Your task to perform on an android device: Open CNN.com Image 0: 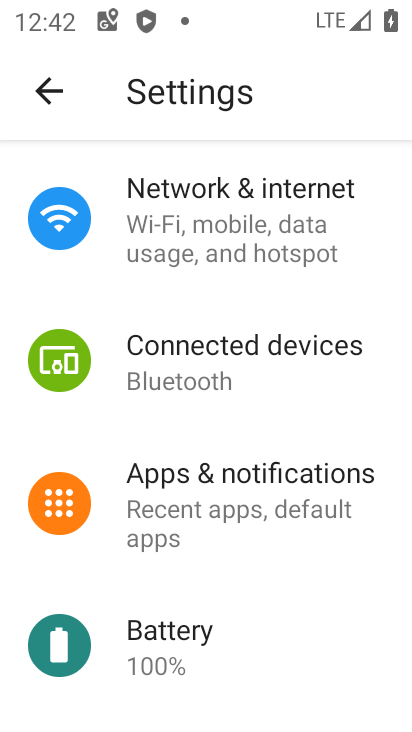
Step 0: press home button
Your task to perform on an android device: Open CNN.com Image 1: 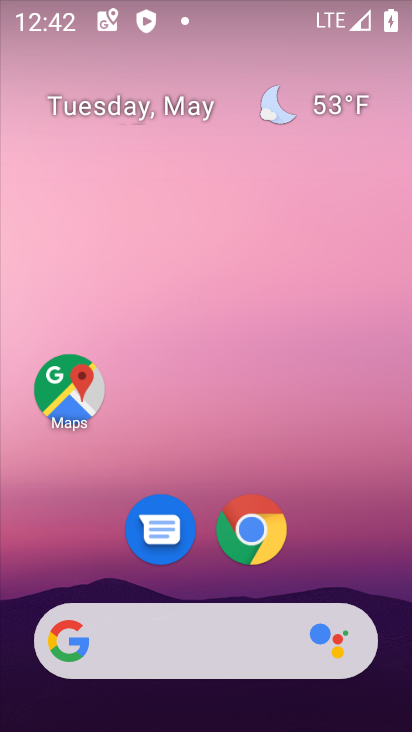
Step 1: click (252, 530)
Your task to perform on an android device: Open CNN.com Image 2: 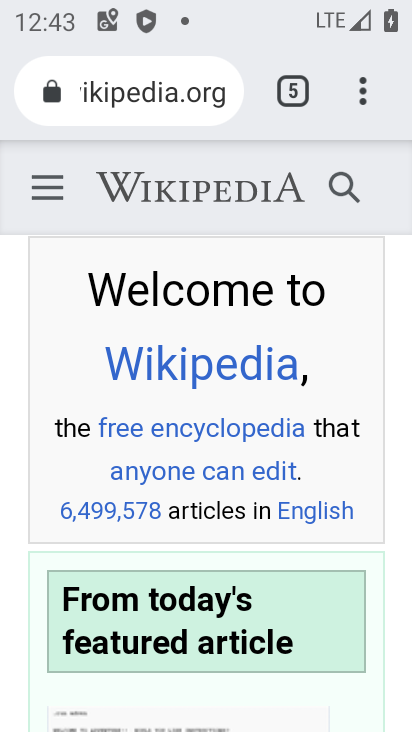
Step 2: click (364, 99)
Your task to perform on an android device: Open CNN.com Image 3: 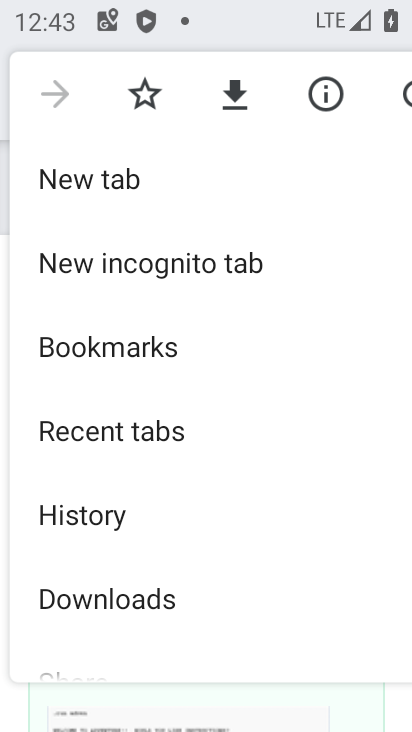
Step 3: click (121, 182)
Your task to perform on an android device: Open CNN.com Image 4: 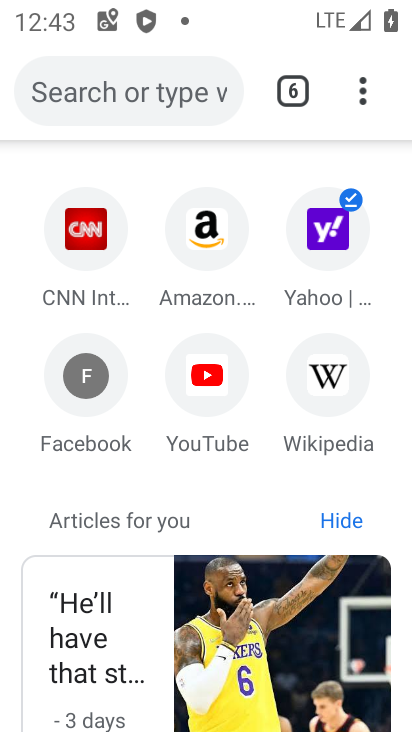
Step 4: click (141, 99)
Your task to perform on an android device: Open CNN.com Image 5: 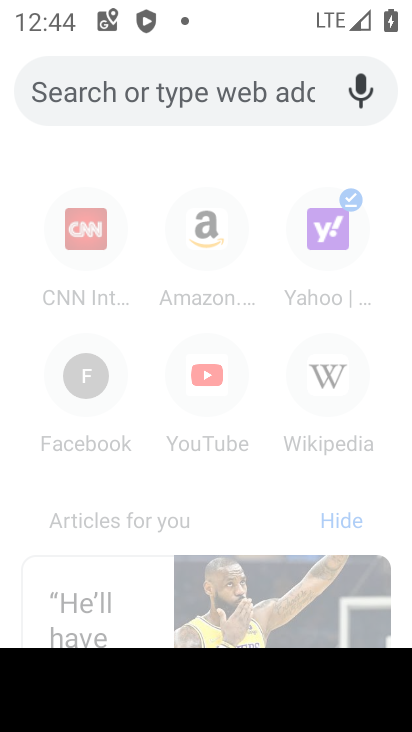
Step 5: type "CNN.com"
Your task to perform on an android device: Open CNN.com Image 6: 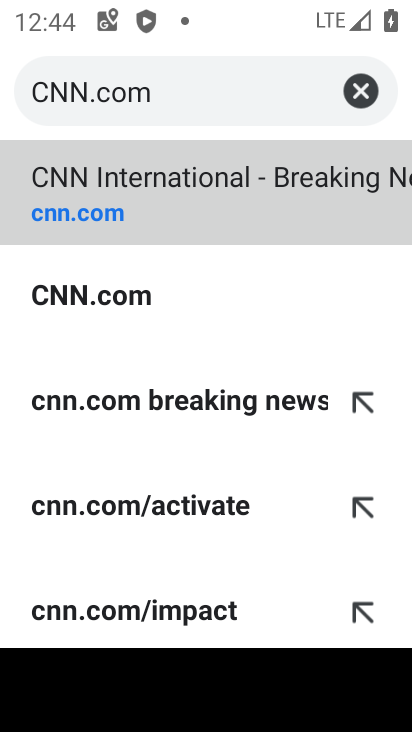
Step 6: click (241, 181)
Your task to perform on an android device: Open CNN.com Image 7: 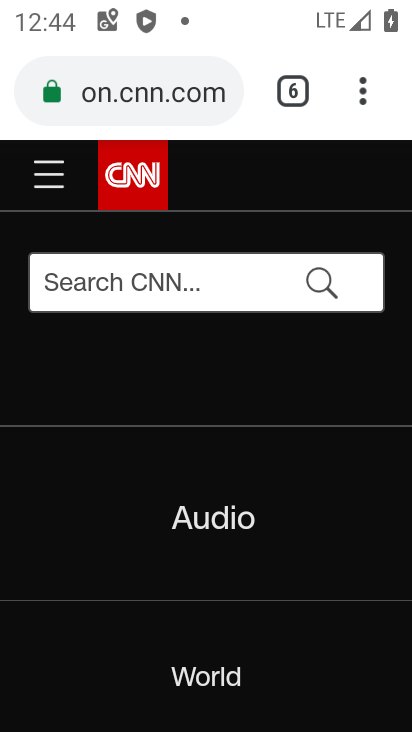
Step 7: task complete